Your task to perform on an android device: delete browsing data in the chrome app Image 0: 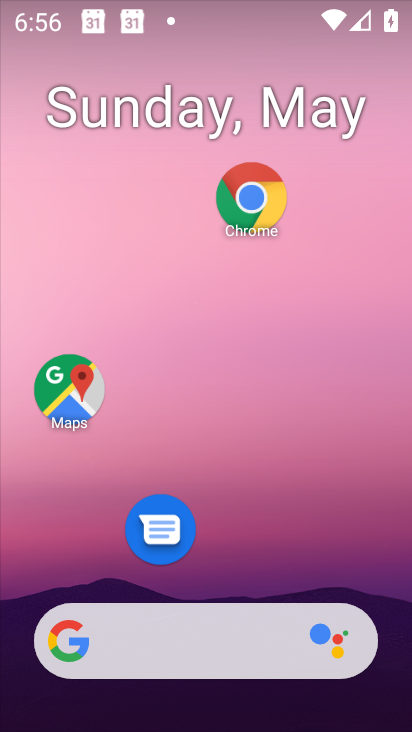
Step 0: click (256, 203)
Your task to perform on an android device: delete browsing data in the chrome app Image 1: 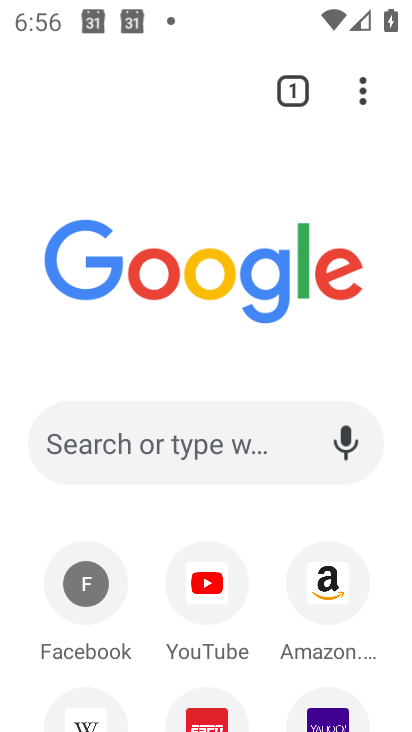
Step 1: click (365, 93)
Your task to perform on an android device: delete browsing data in the chrome app Image 2: 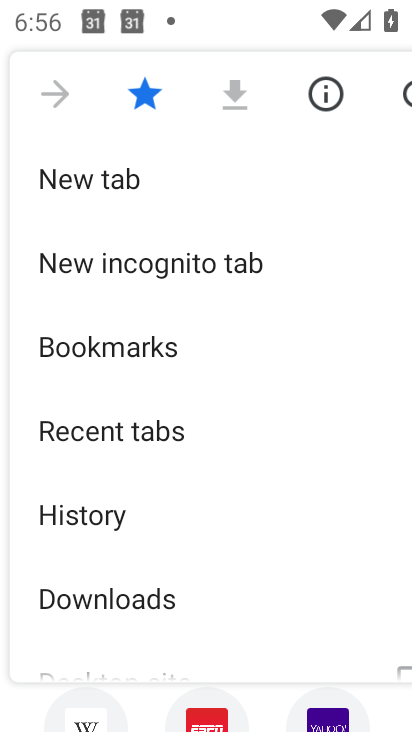
Step 2: click (124, 507)
Your task to perform on an android device: delete browsing data in the chrome app Image 3: 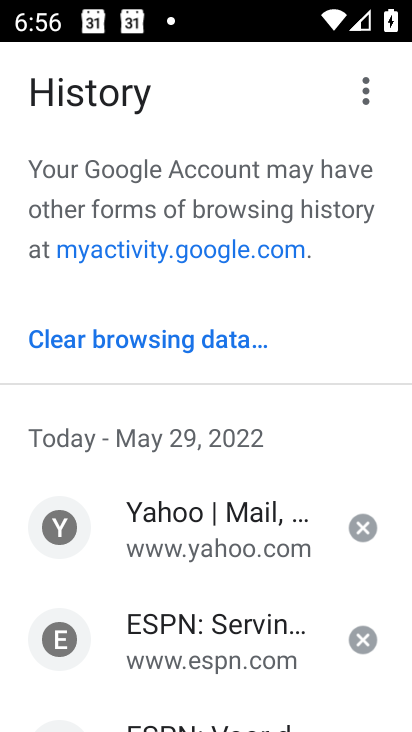
Step 3: click (179, 354)
Your task to perform on an android device: delete browsing data in the chrome app Image 4: 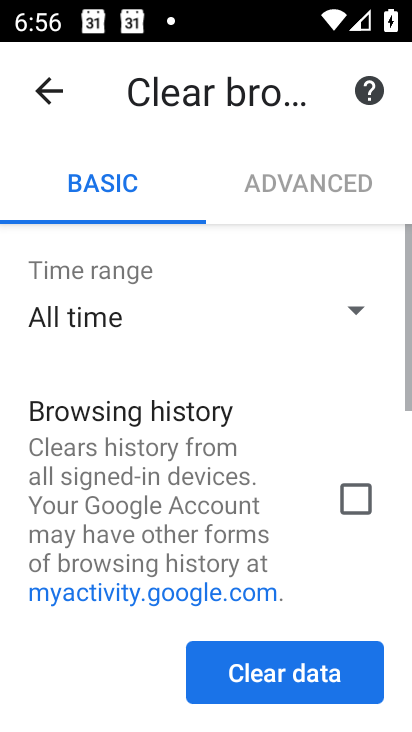
Step 4: drag from (240, 560) to (249, 245)
Your task to perform on an android device: delete browsing data in the chrome app Image 5: 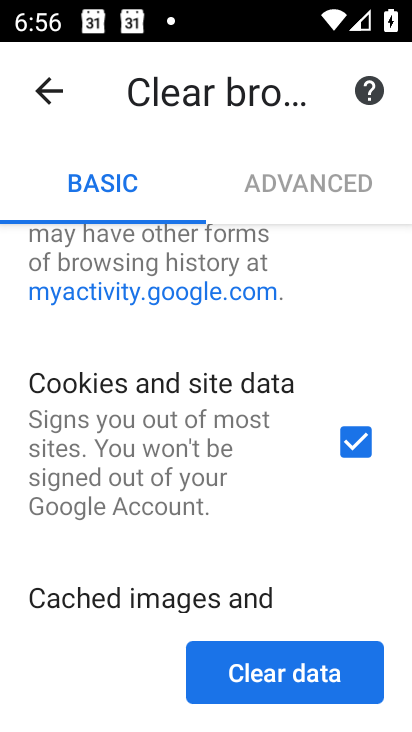
Step 5: click (367, 432)
Your task to perform on an android device: delete browsing data in the chrome app Image 6: 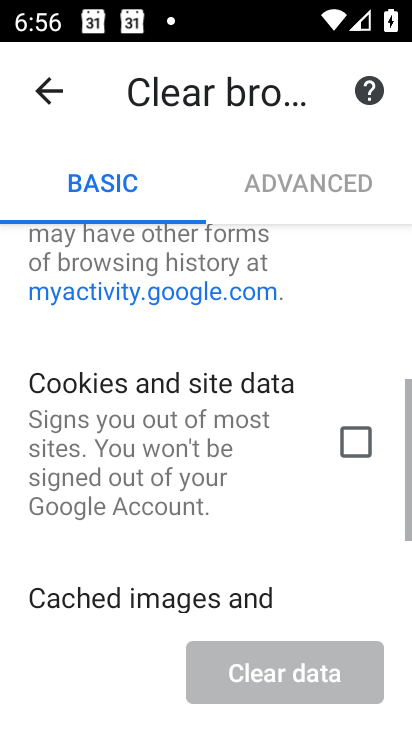
Step 6: drag from (279, 516) to (319, 204)
Your task to perform on an android device: delete browsing data in the chrome app Image 7: 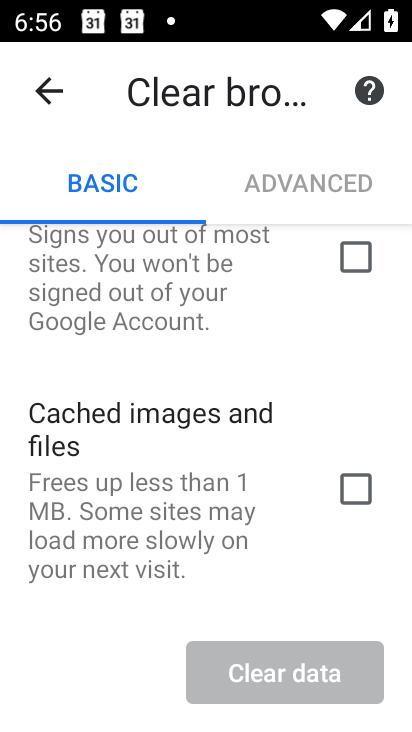
Step 7: click (217, 217)
Your task to perform on an android device: delete browsing data in the chrome app Image 8: 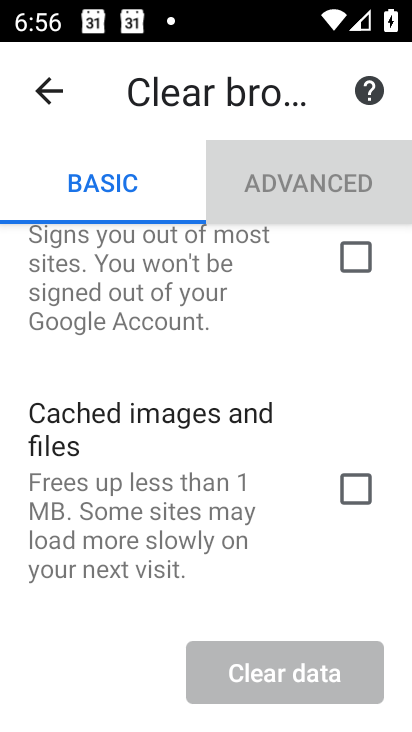
Step 8: drag from (178, 287) to (185, 530)
Your task to perform on an android device: delete browsing data in the chrome app Image 9: 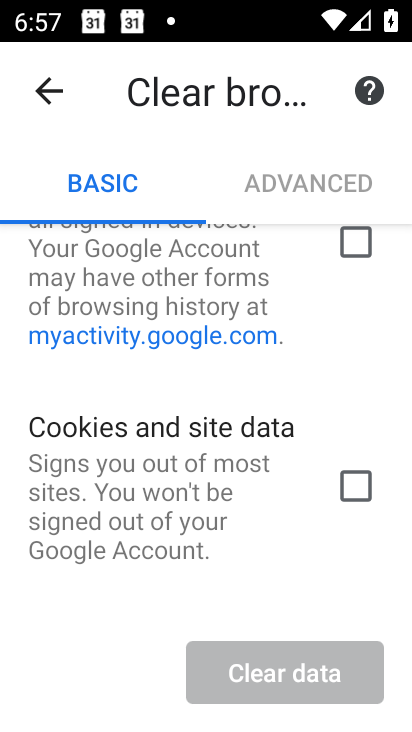
Step 9: click (352, 252)
Your task to perform on an android device: delete browsing data in the chrome app Image 10: 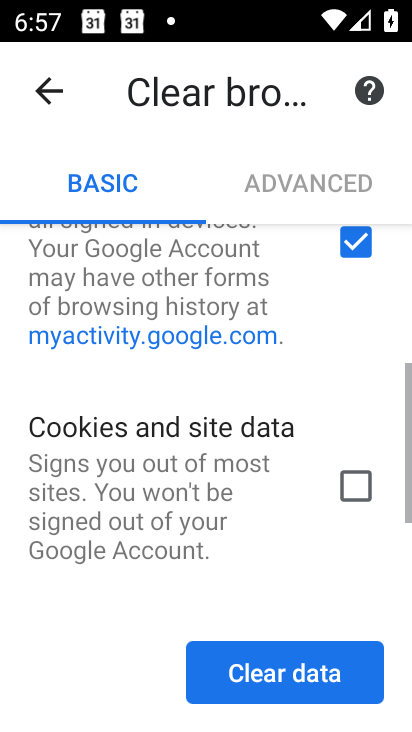
Step 10: click (286, 666)
Your task to perform on an android device: delete browsing data in the chrome app Image 11: 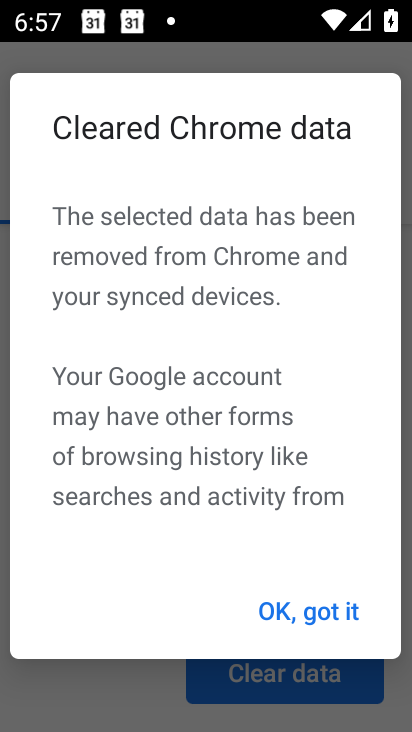
Step 11: click (295, 612)
Your task to perform on an android device: delete browsing data in the chrome app Image 12: 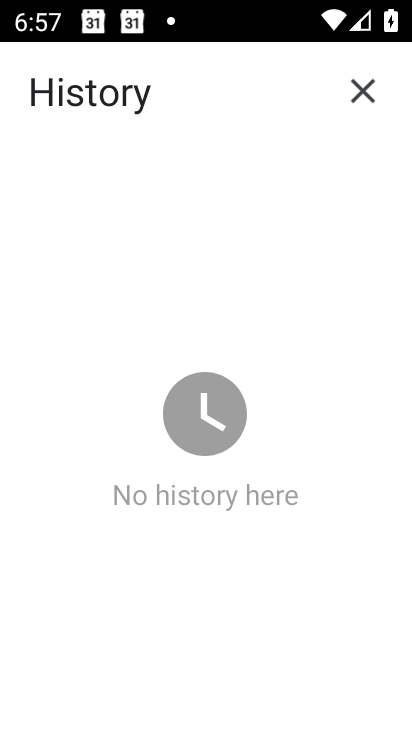
Step 12: task complete